Your task to perform on an android device: open wifi settings Image 0: 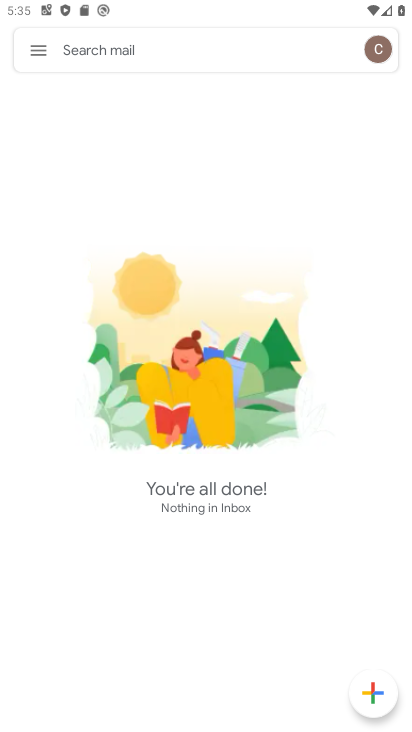
Step 0: click (35, 50)
Your task to perform on an android device: open wifi settings Image 1: 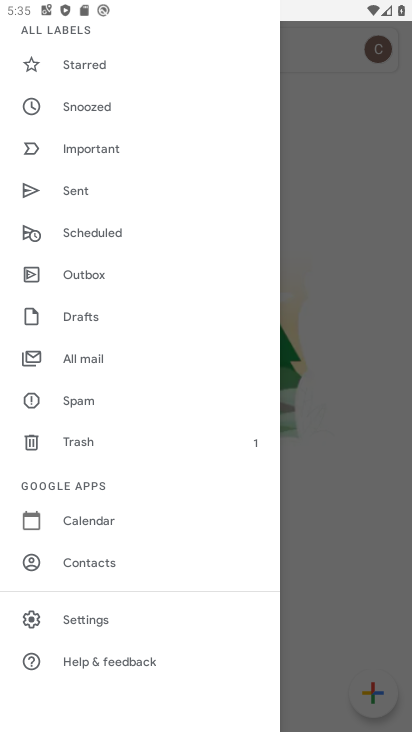
Step 1: press home button
Your task to perform on an android device: open wifi settings Image 2: 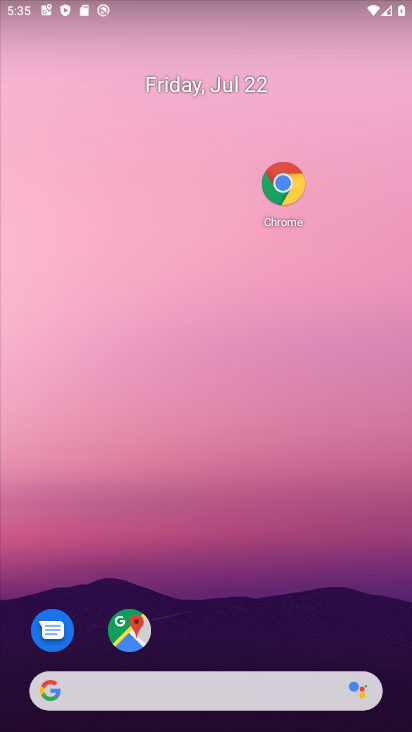
Step 2: drag from (206, 584) to (172, 161)
Your task to perform on an android device: open wifi settings Image 3: 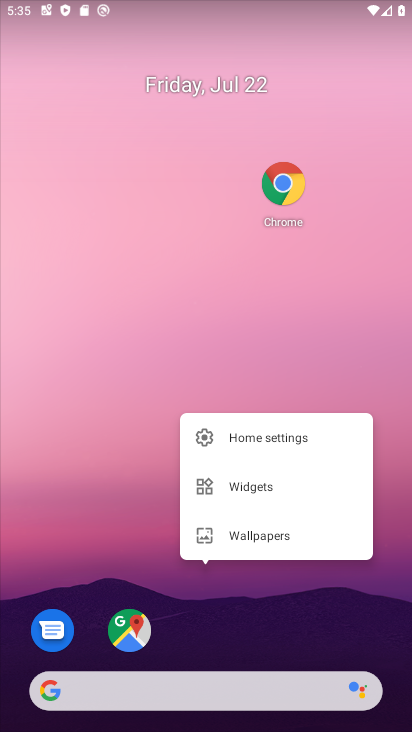
Step 3: click (207, 610)
Your task to perform on an android device: open wifi settings Image 4: 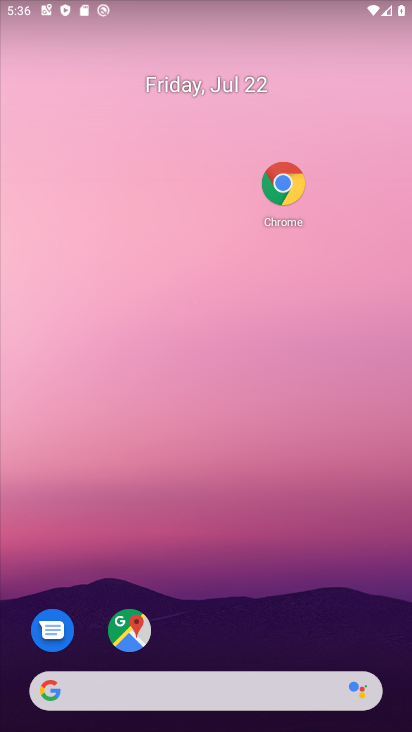
Step 4: drag from (207, 610) to (210, 148)
Your task to perform on an android device: open wifi settings Image 5: 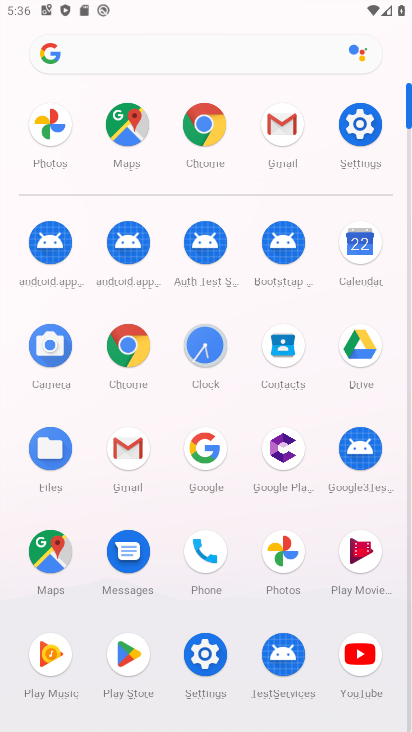
Step 5: click (202, 662)
Your task to perform on an android device: open wifi settings Image 6: 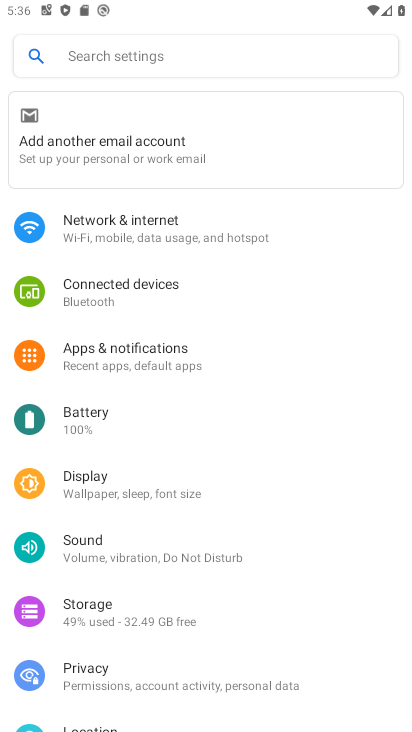
Step 6: click (141, 208)
Your task to perform on an android device: open wifi settings Image 7: 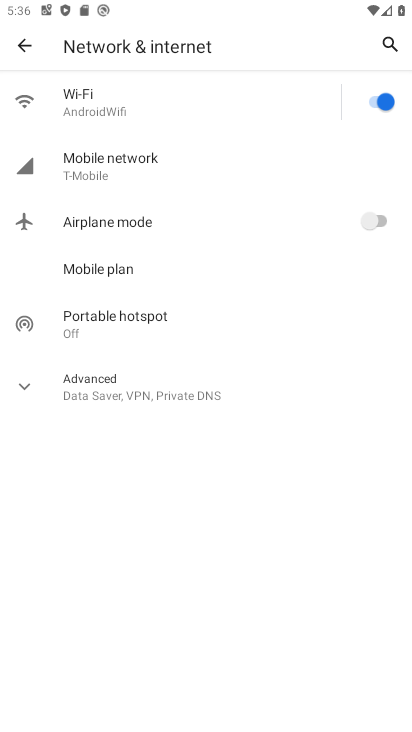
Step 7: click (170, 121)
Your task to perform on an android device: open wifi settings Image 8: 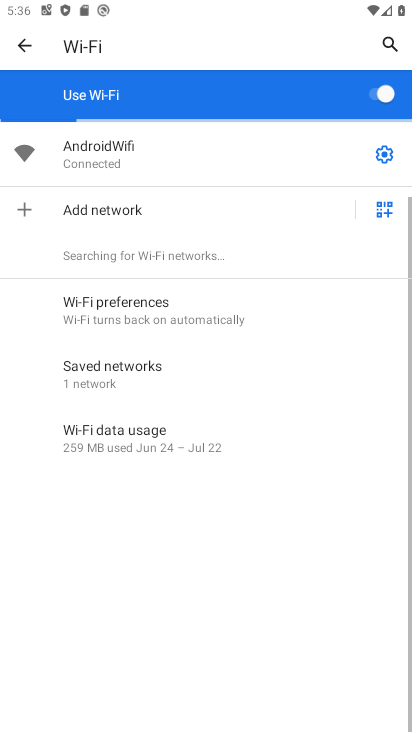
Step 8: task complete